Your task to perform on an android device: Search for seafood restaurants on Google Maps Image 0: 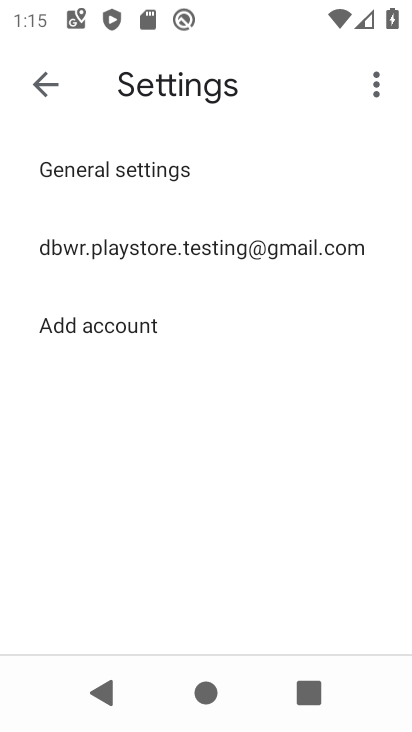
Step 0: press back button
Your task to perform on an android device: Search for seafood restaurants on Google Maps Image 1: 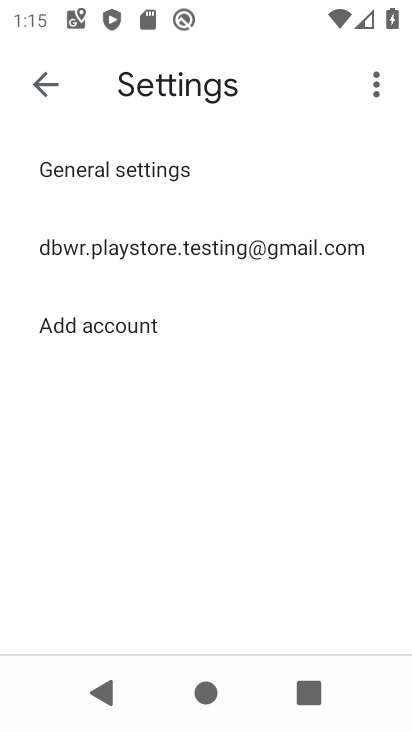
Step 1: press back button
Your task to perform on an android device: Search for seafood restaurants on Google Maps Image 2: 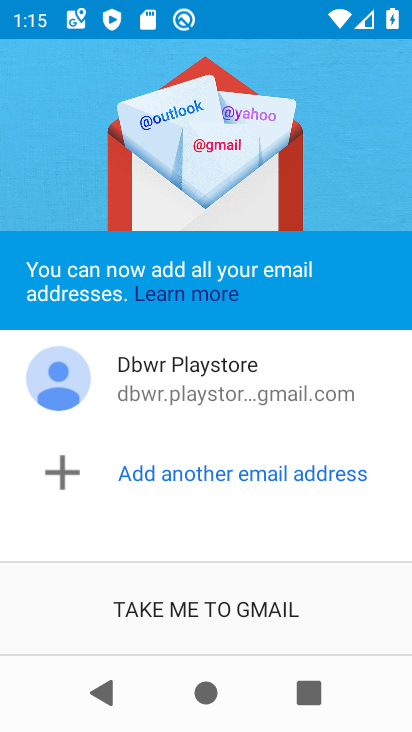
Step 2: press back button
Your task to perform on an android device: Search for seafood restaurants on Google Maps Image 3: 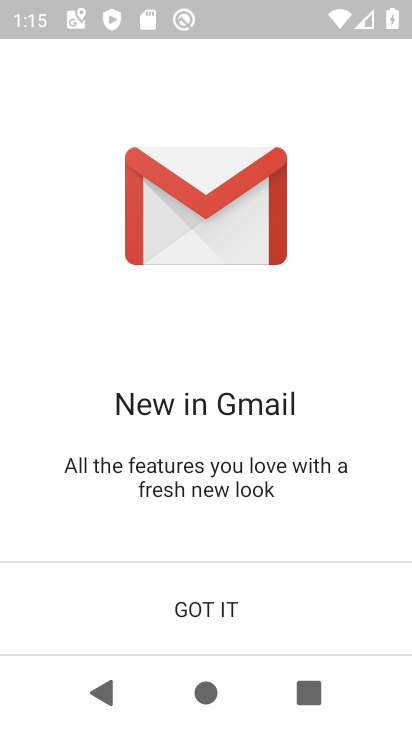
Step 3: press back button
Your task to perform on an android device: Search for seafood restaurants on Google Maps Image 4: 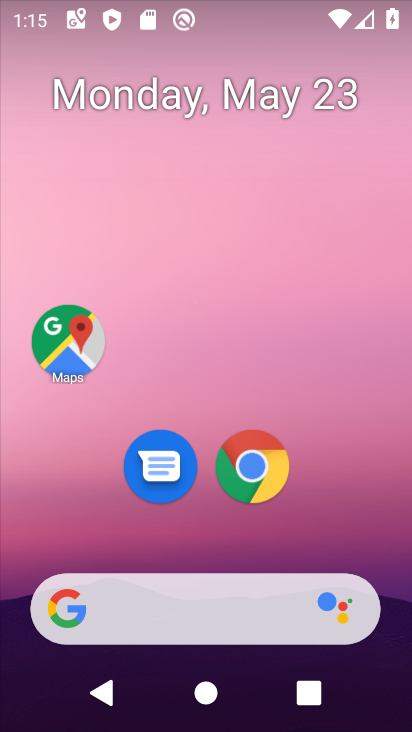
Step 4: click (67, 345)
Your task to perform on an android device: Search for seafood restaurants on Google Maps Image 5: 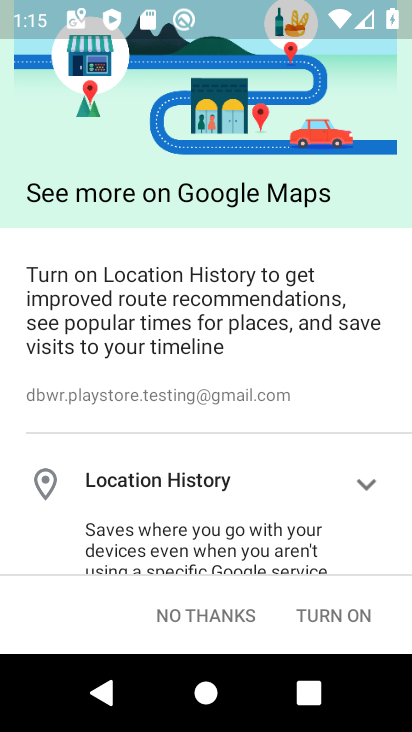
Step 5: click (207, 614)
Your task to perform on an android device: Search for seafood restaurants on Google Maps Image 6: 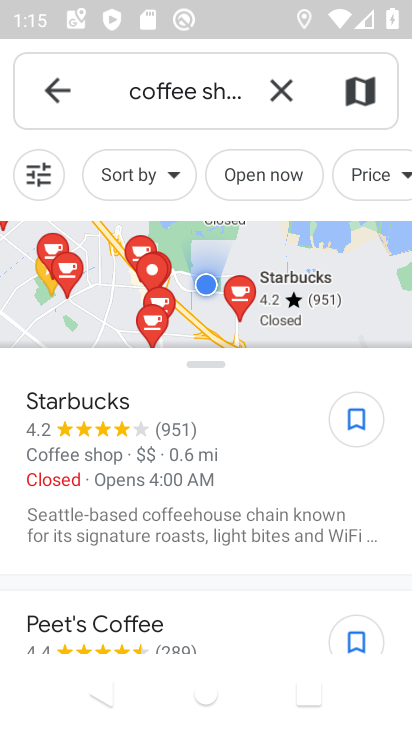
Step 6: click (280, 92)
Your task to perform on an android device: Search for seafood restaurants on Google Maps Image 7: 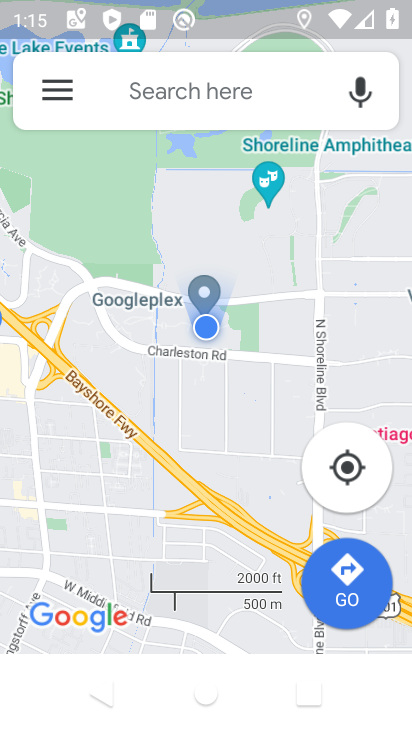
Step 7: click (231, 91)
Your task to perform on an android device: Search for seafood restaurants on Google Maps Image 8: 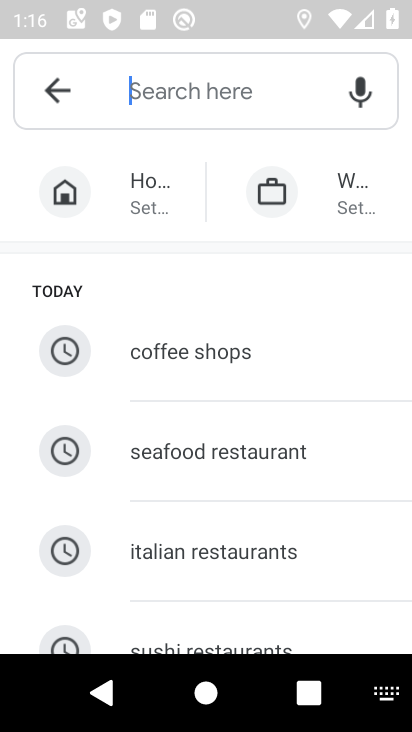
Step 8: type "seafood restaurants"
Your task to perform on an android device: Search for seafood restaurants on Google Maps Image 9: 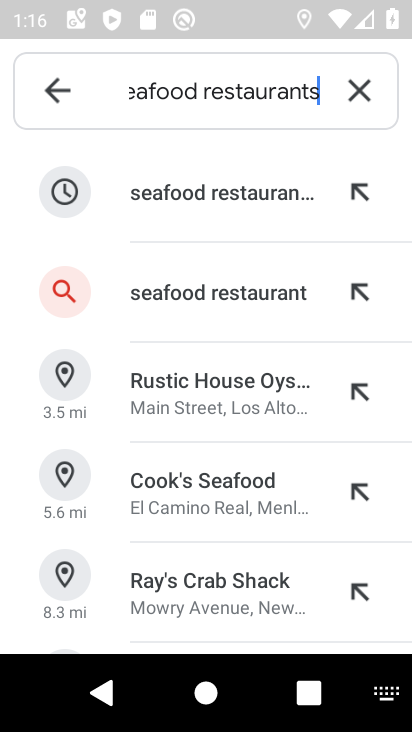
Step 9: click (174, 198)
Your task to perform on an android device: Search for seafood restaurants on Google Maps Image 10: 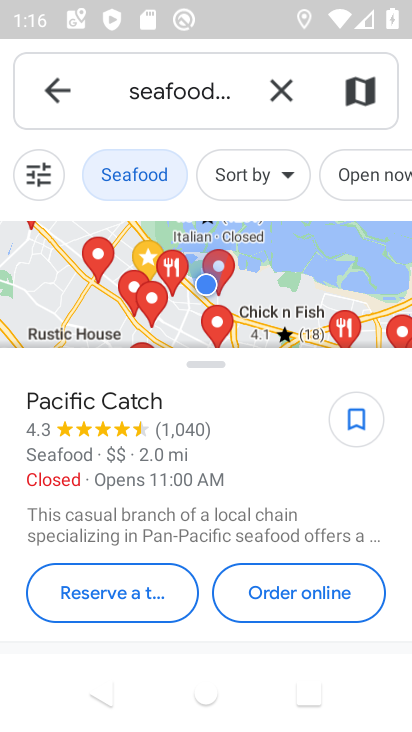
Step 10: task complete